Your task to perform on an android device: What is the news today? Image 0: 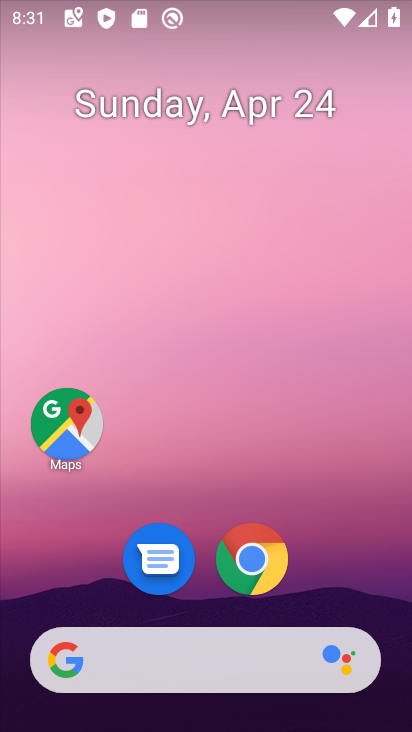
Step 0: drag from (389, 602) to (361, 301)
Your task to perform on an android device: What is the news today? Image 1: 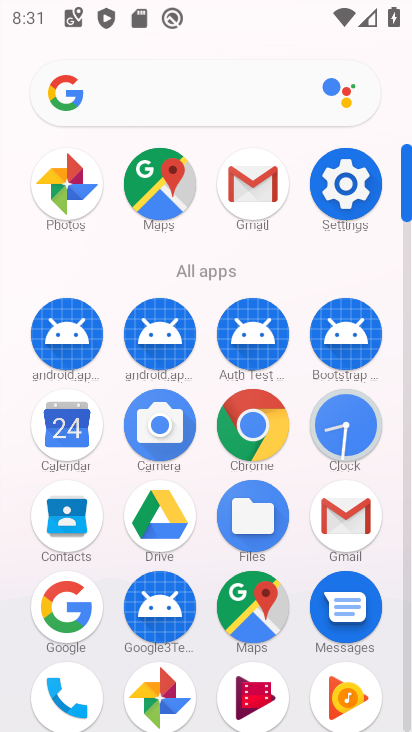
Step 1: click (258, 402)
Your task to perform on an android device: What is the news today? Image 2: 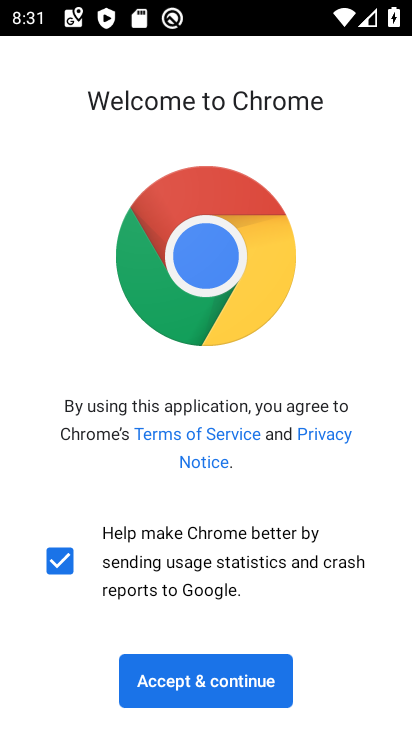
Step 2: click (235, 687)
Your task to perform on an android device: What is the news today? Image 3: 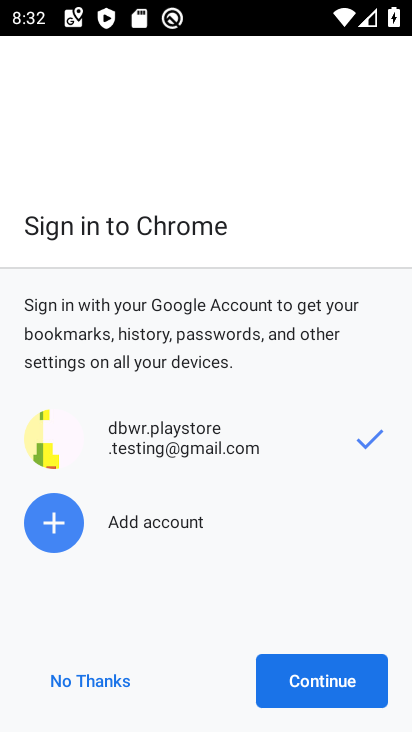
Step 3: click (327, 674)
Your task to perform on an android device: What is the news today? Image 4: 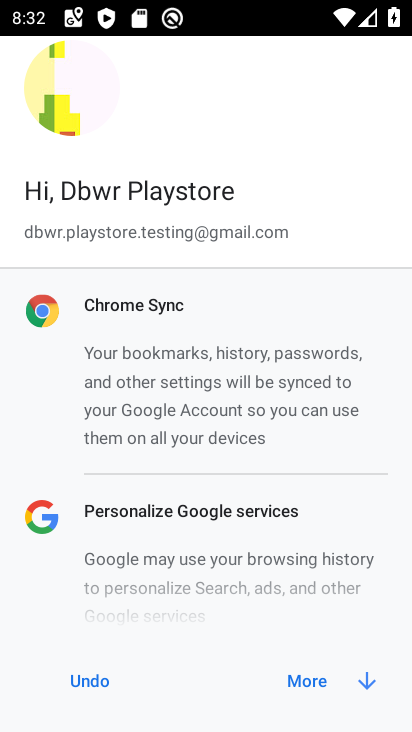
Step 4: click (327, 674)
Your task to perform on an android device: What is the news today? Image 5: 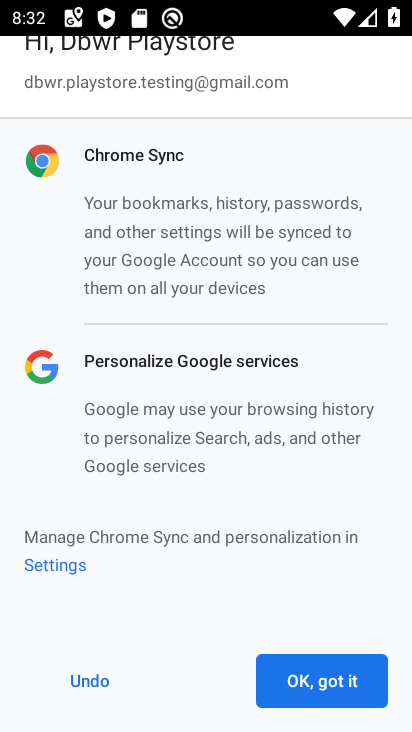
Step 5: click (327, 674)
Your task to perform on an android device: What is the news today? Image 6: 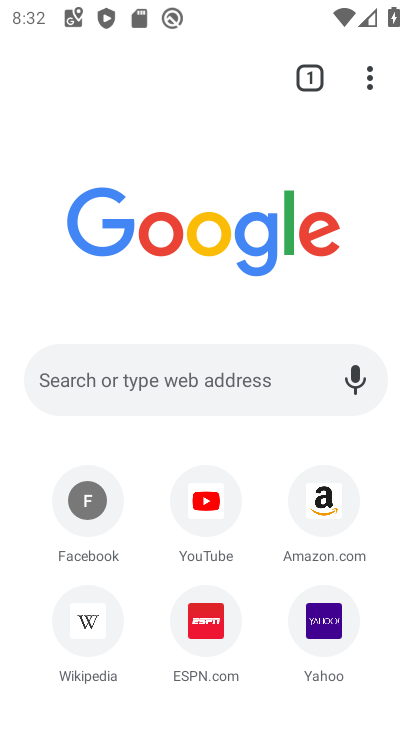
Step 6: click (228, 385)
Your task to perform on an android device: What is the news today? Image 7: 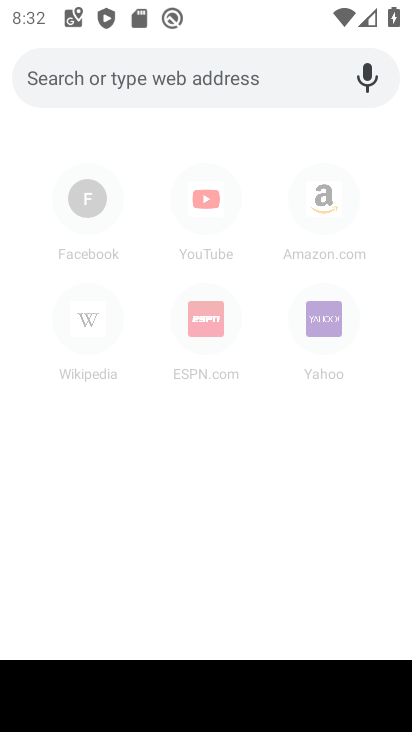
Step 7: type "What is the news today?"
Your task to perform on an android device: What is the news today? Image 8: 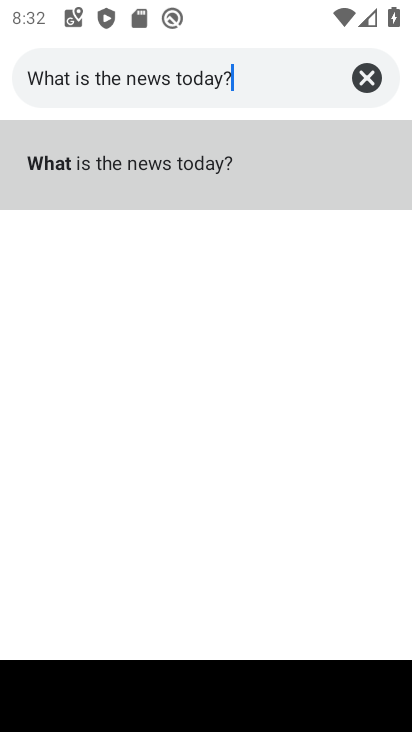
Step 8: click (187, 175)
Your task to perform on an android device: What is the news today? Image 9: 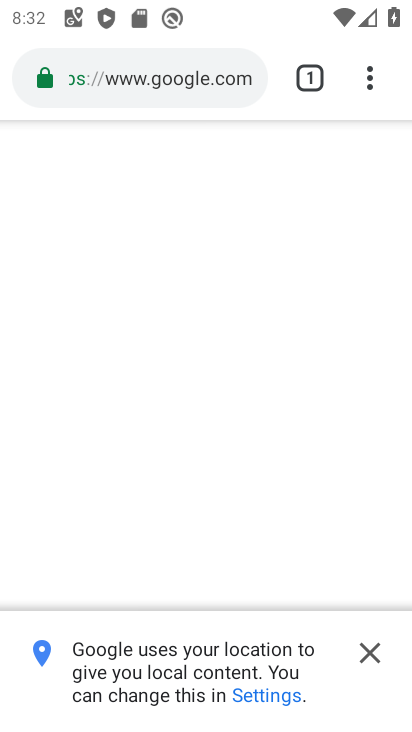
Step 9: click (372, 655)
Your task to perform on an android device: What is the news today? Image 10: 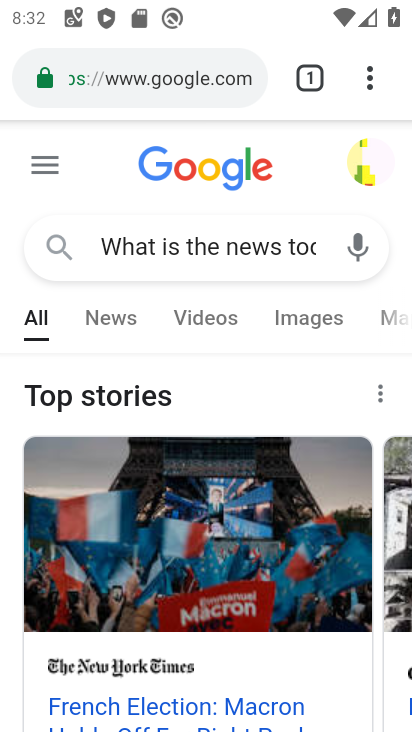
Step 10: task complete